Your task to perform on an android device: Go to Android settings Image 0: 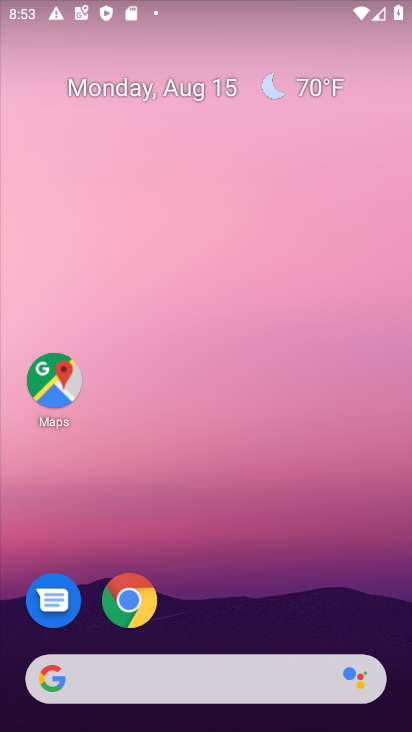
Step 0: drag from (217, 611) to (211, 198)
Your task to perform on an android device: Go to Android settings Image 1: 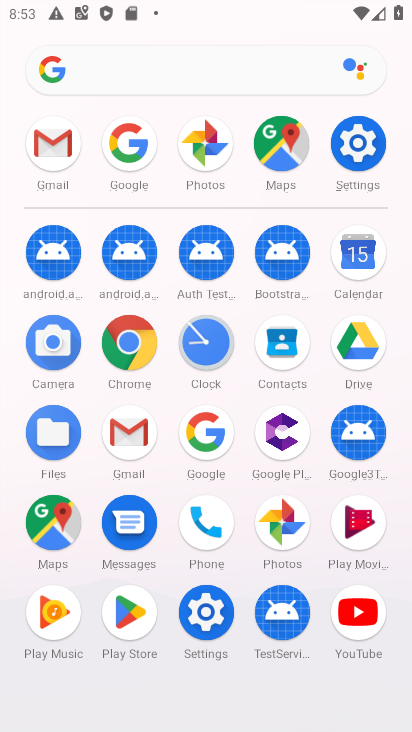
Step 1: click (368, 145)
Your task to perform on an android device: Go to Android settings Image 2: 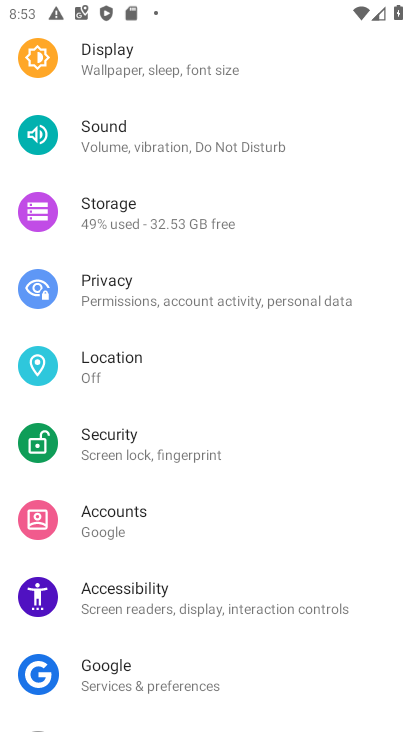
Step 2: task complete